Your task to perform on an android device: Is it going to rain tomorrow? Image 0: 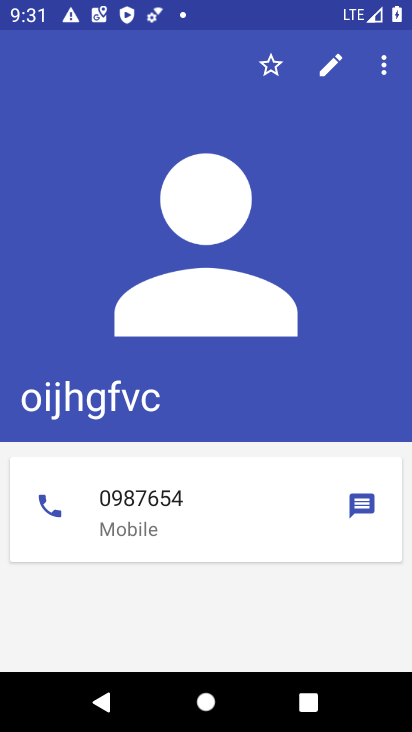
Step 0: press home button
Your task to perform on an android device: Is it going to rain tomorrow? Image 1: 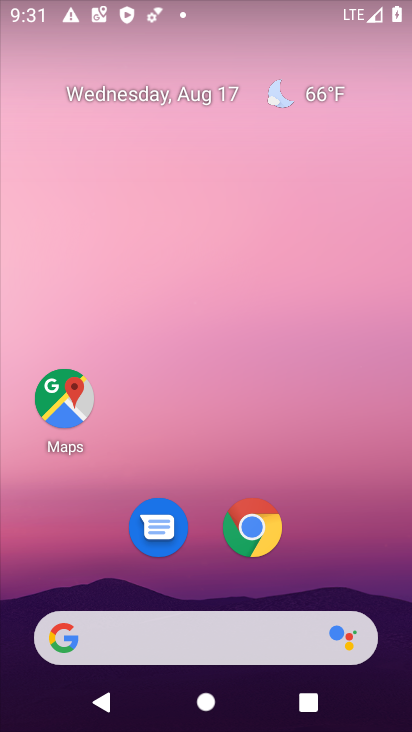
Step 1: click (327, 85)
Your task to perform on an android device: Is it going to rain tomorrow? Image 2: 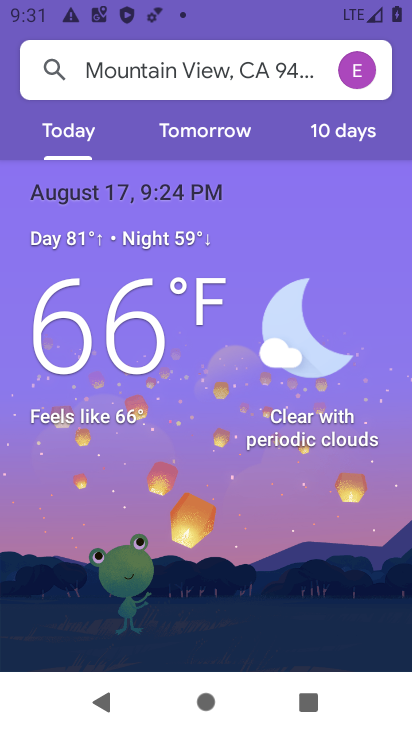
Step 2: click (190, 139)
Your task to perform on an android device: Is it going to rain tomorrow? Image 3: 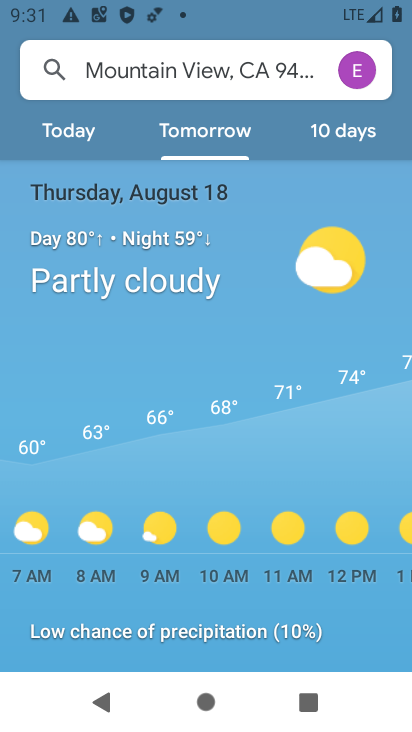
Step 3: task complete